Your task to perform on an android device: Open calendar and show me the first week of next month Image 0: 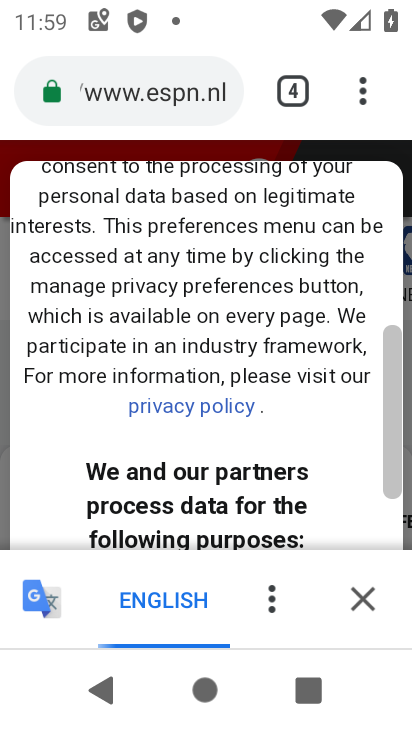
Step 0: press home button
Your task to perform on an android device: Open calendar and show me the first week of next month Image 1: 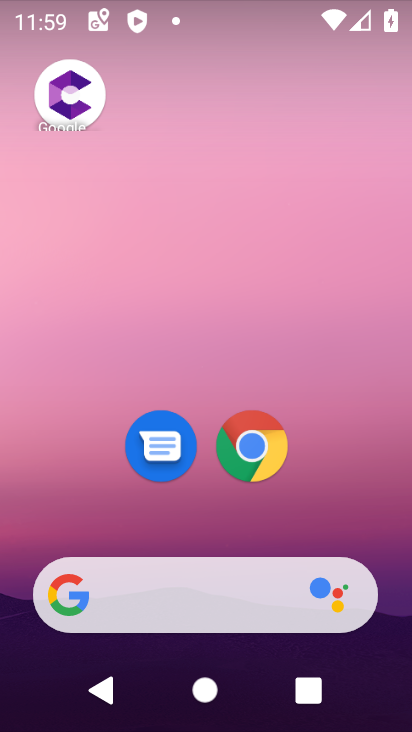
Step 1: drag from (354, 482) to (329, 0)
Your task to perform on an android device: Open calendar and show me the first week of next month Image 2: 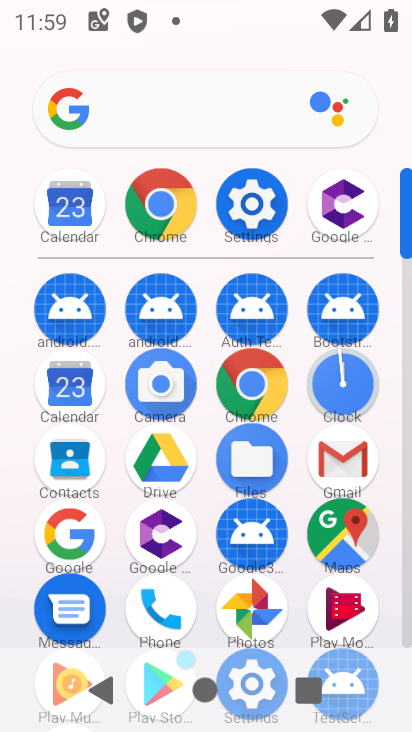
Step 2: click (70, 383)
Your task to perform on an android device: Open calendar and show me the first week of next month Image 3: 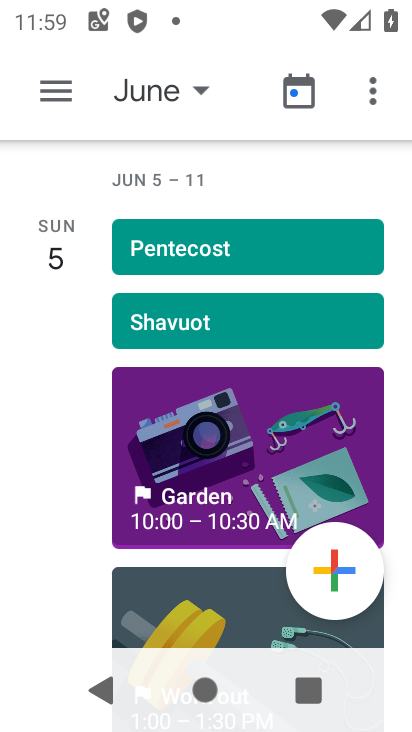
Step 3: click (183, 66)
Your task to perform on an android device: Open calendar and show me the first week of next month Image 4: 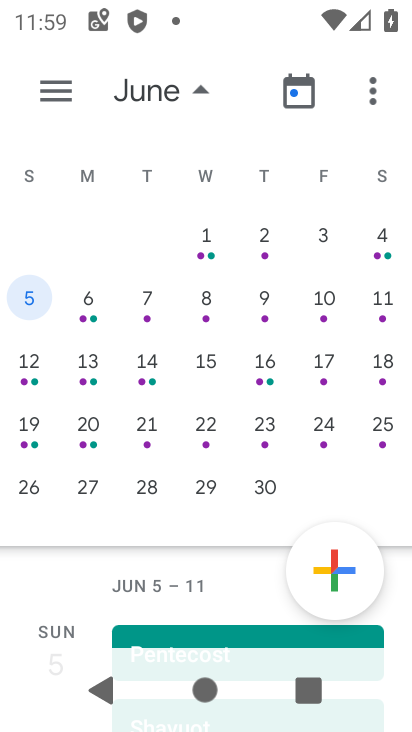
Step 4: drag from (335, 396) to (29, 443)
Your task to perform on an android device: Open calendar and show me the first week of next month Image 5: 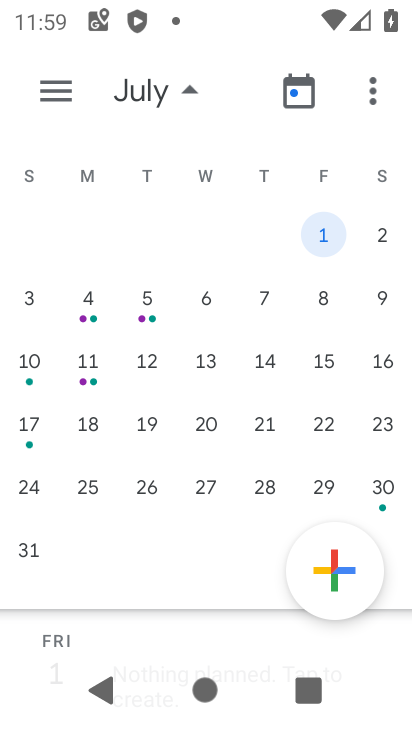
Step 5: click (78, 301)
Your task to perform on an android device: Open calendar and show me the first week of next month Image 6: 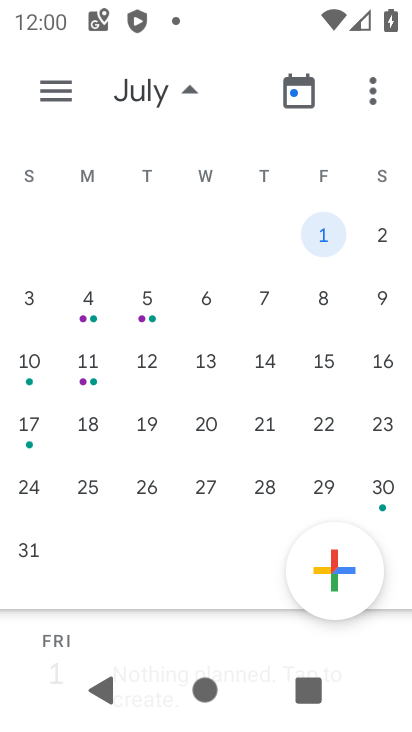
Step 6: task complete